Your task to perform on an android device: What's on my calendar today? Image 0: 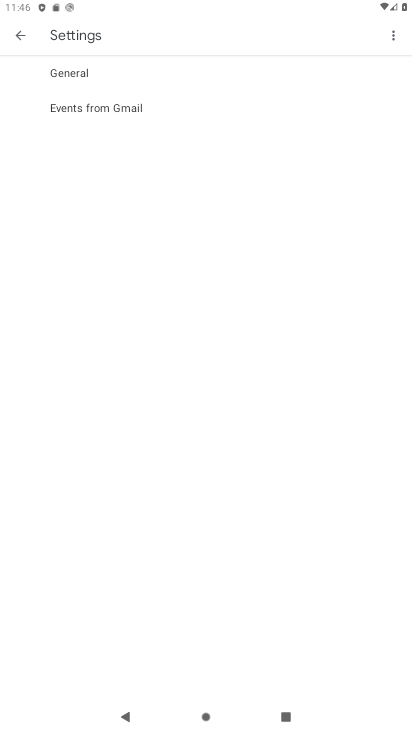
Step 0: press home button
Your task to perform on an android device: What's on my calendar today? Image 1: 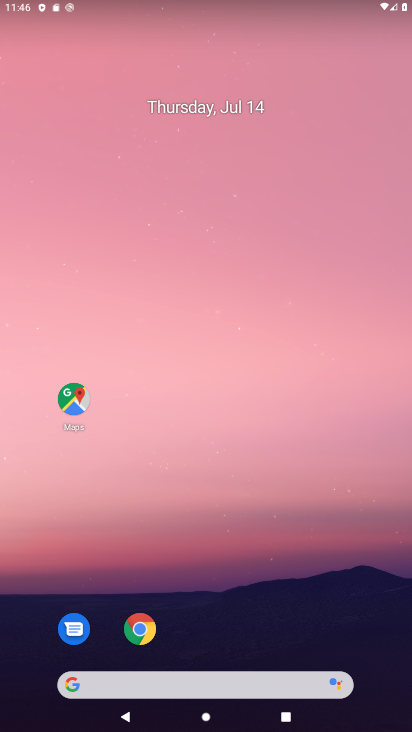
Step 1: drag from (274, 588) to (237, 72)
Your task to perform on an android device: What's on my calendar today? Image 2: 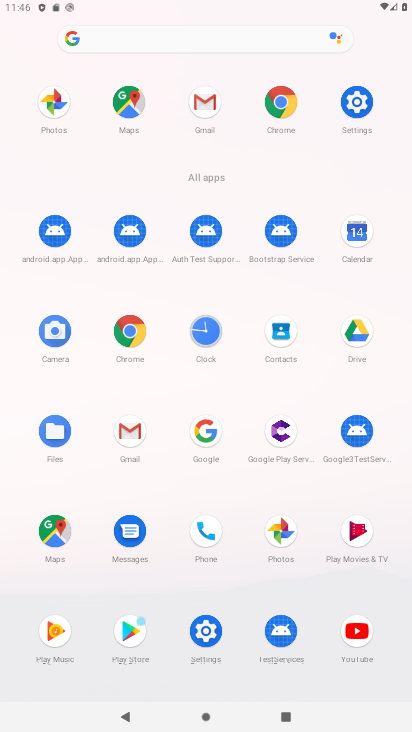
Step 2: click (350, 235)
Your task to perform on an android device: What's on my calendar today? Image 3: 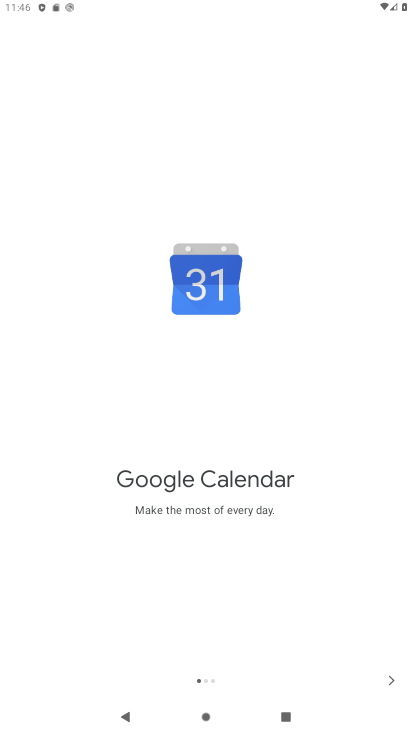
Step 3: click (391, 681)
Your task to perform on an android device: What's on my calendar today? Image 4: 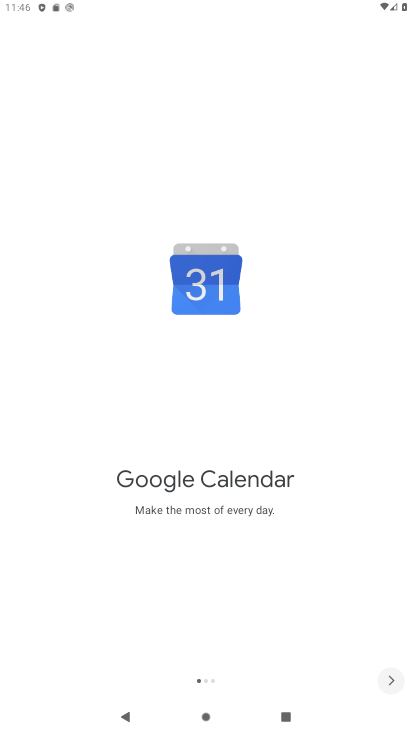
Step 4: click (391, 681)
Your task to perform on an android device: What's on my calendar today? Image 5: 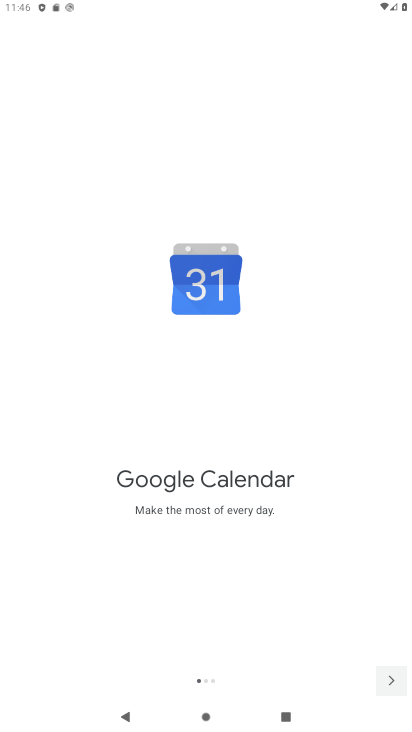
Step 5: click (391, 681)
Your task to perform on an android device: What's on my calendar today? Image 6: 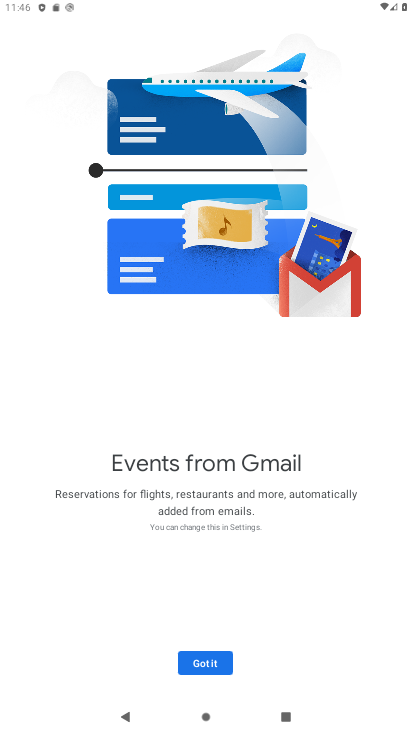
Step 6: click (391, 681)
Your task to perform on an android device: What's on my calendar today? Image 7: 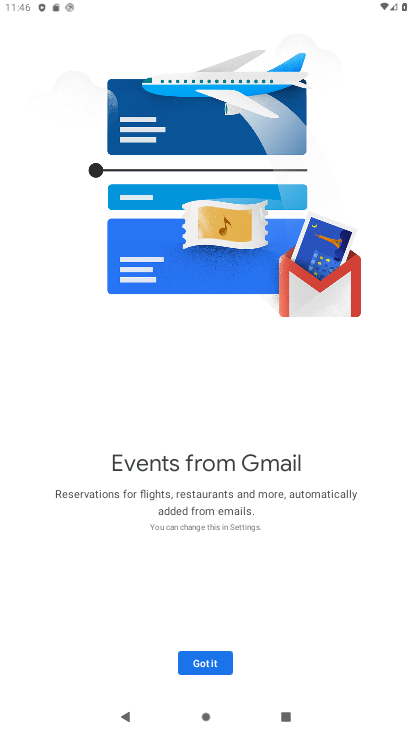
Step 7: click (215, 659)
Your task to perform on an android device: What's on my calendar today? Image 8: 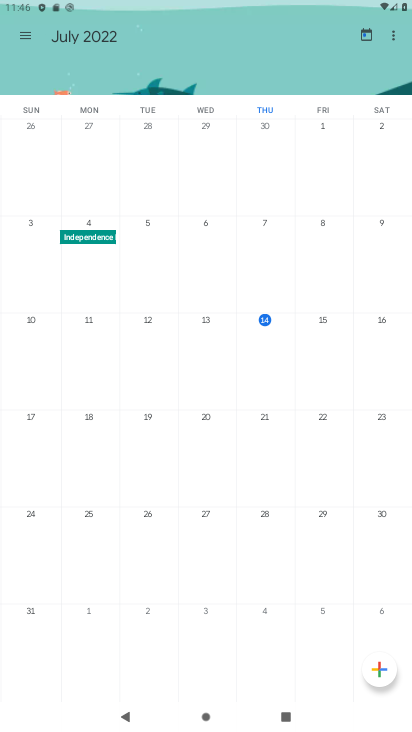
Step 8: click (268, 319)
Your task to perform on an android device: What's on my calendar today? Image 9: 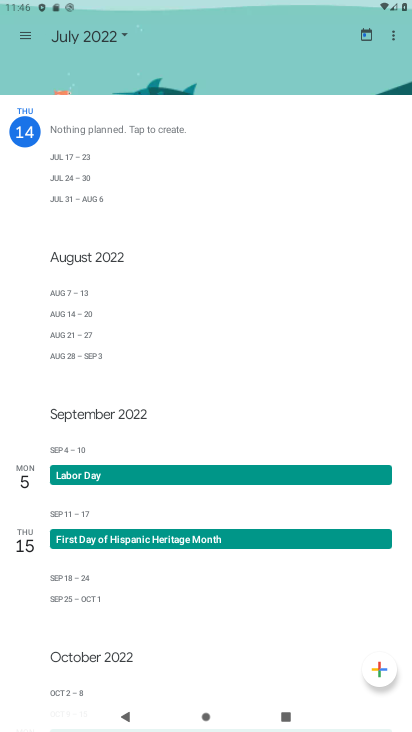
Step 9: task complete